Your task to perform on an android device: see creations saved in the google photos Image 0: 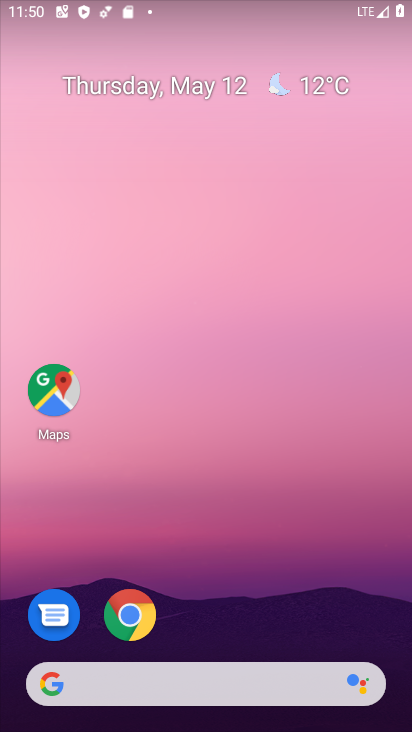
Step 0: drag from (202, 621) to (229, 203)
Your task to perform on an android device: see creations saved in the google photos Image 1: 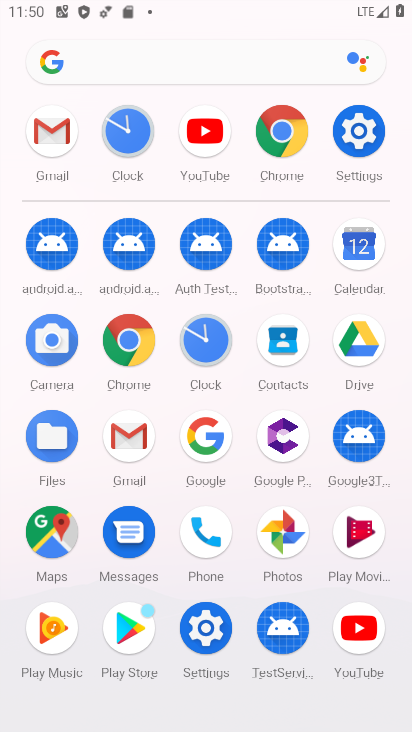
Step 1: click (263, 534)
Your task to perform on an android device: see creations saved in the google photos Image 2: 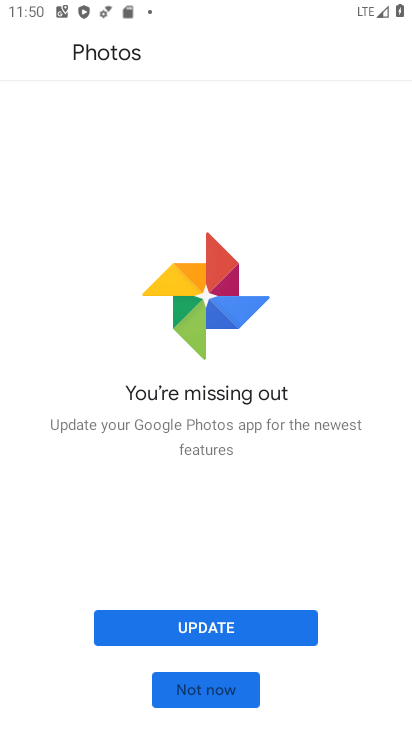
Step 2: click (222, 630)
Your task to perform on an android device: see creations saved in the google photos Image 3: 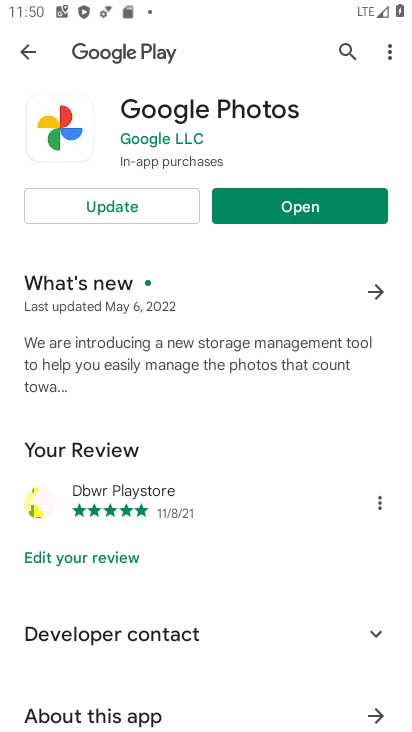
Step 3: click (253, 210)
Your task to perform on an android device: see creations saved in the google photos Image 4: 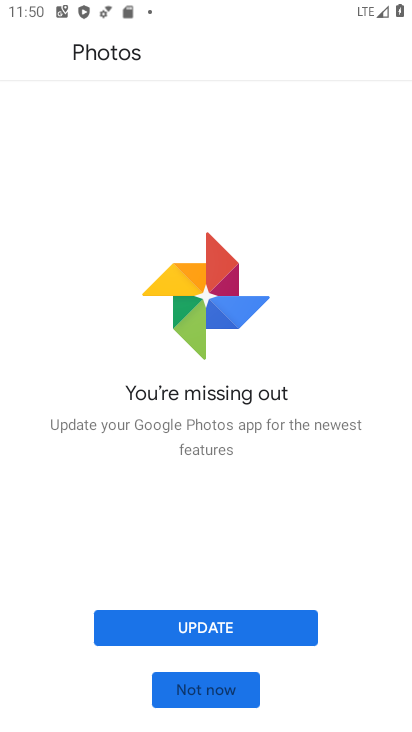
Step 4: click (180, 694)
Your task to perform on an android device: see creations saved in the google photos Image 5: 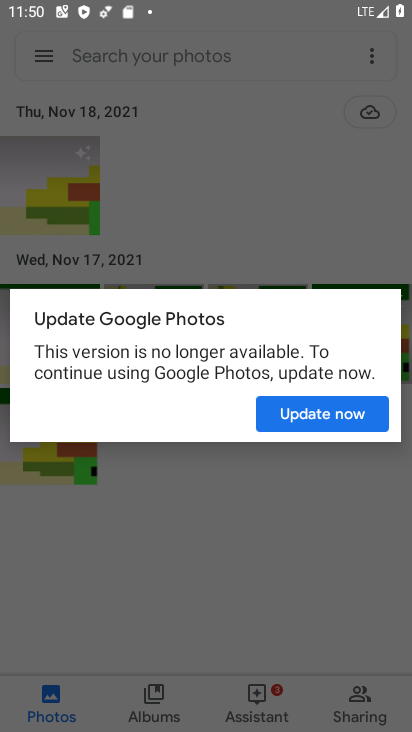
Step 5: click (275, 415)
Your task to perform on an android device: see creations saved in the google photos Image 6: 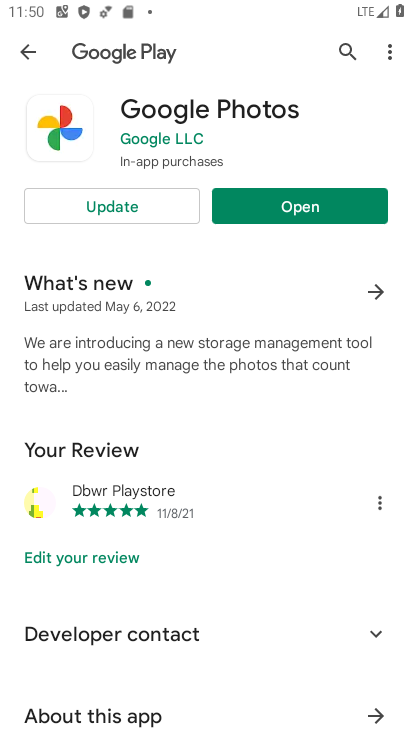
Step 6: click (236, 201)
Your task to perform on an android device: see creations saved in the google photos Image 7: 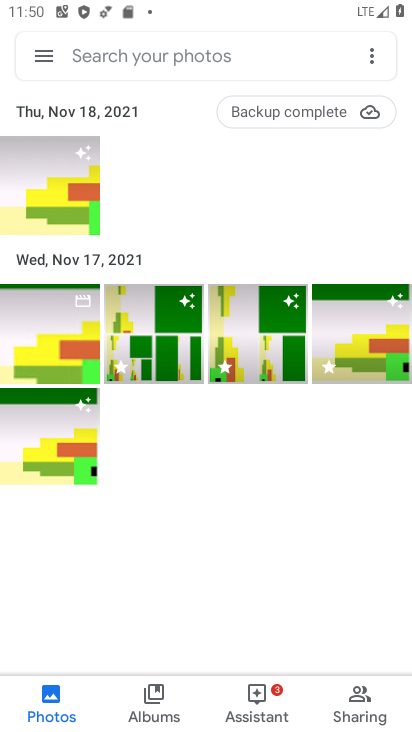
Step 7: click (53, 57)
Your task to perform on an android device: see creations saved in the google photos Image 8: 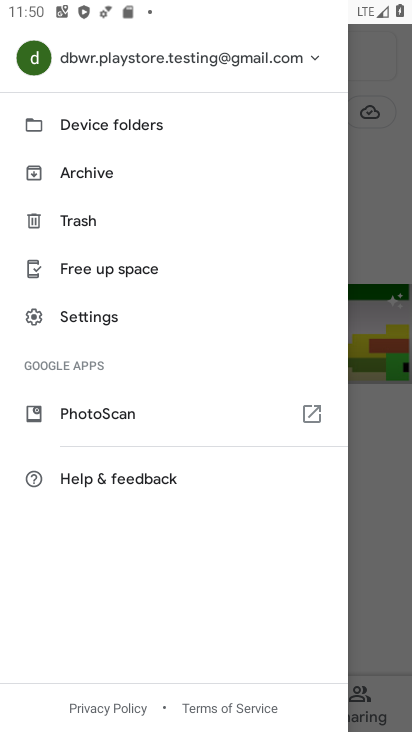
Step 8: click (385, 272)
Your task to perform on an android device: see creations saved in the google photos Image 9: 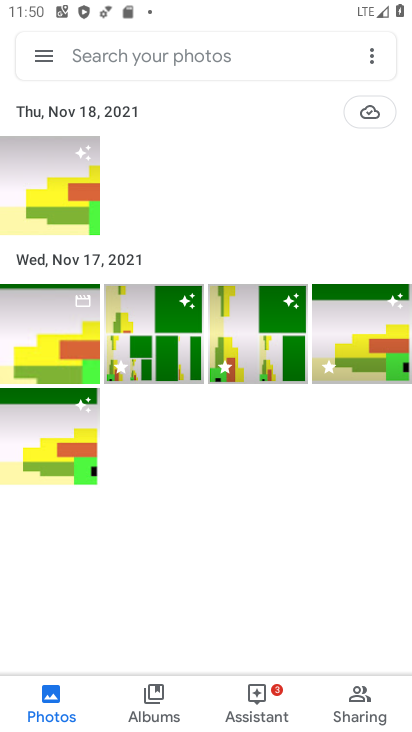
Step 9: click (210, 68)
Your task to perform on an android device: see creations saved in the google photos Image 10: 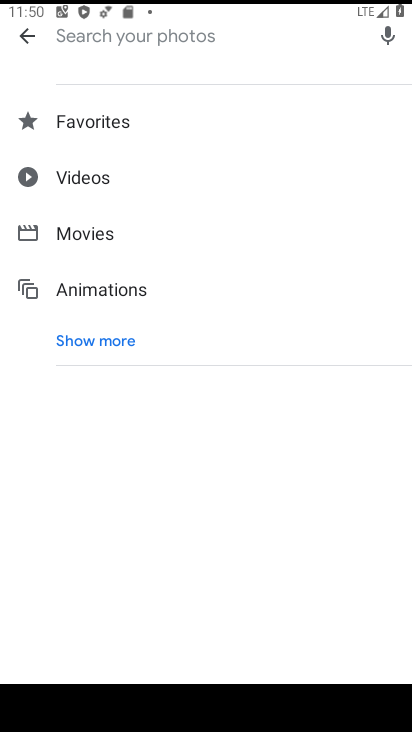
Step 10: click (110, 337)
Your task to perform on an android device: see creations saved in the google photos Image 11: 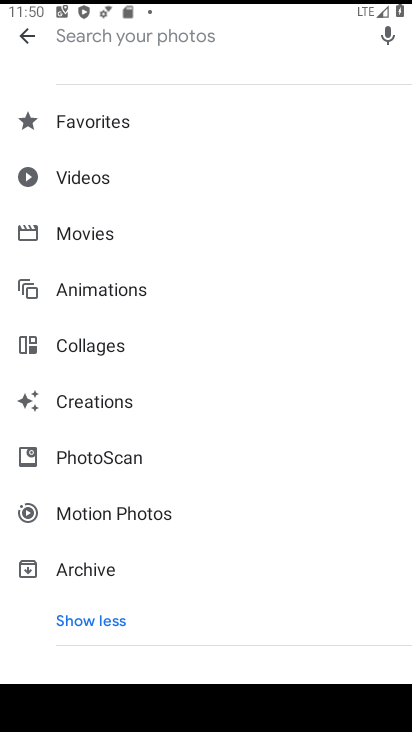
Step 11: drag from (126, 583) to (143, 456)
Your task to perform on an android device: see creations saved in the google photos Image 12: 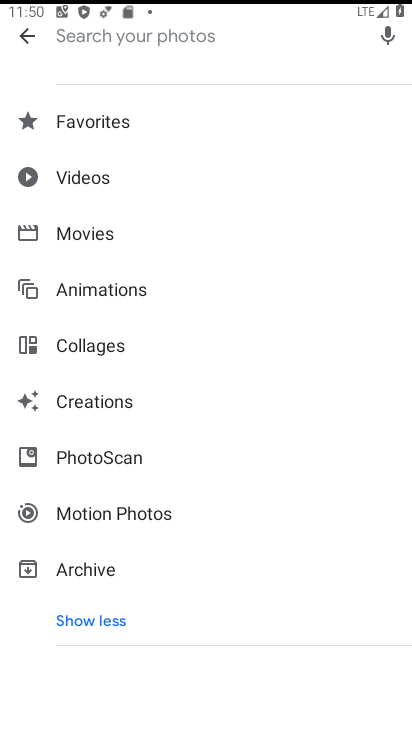
Step 12: click (126, 401)
Your task to perform on an android device: see creations saved in the google photos Image 13: 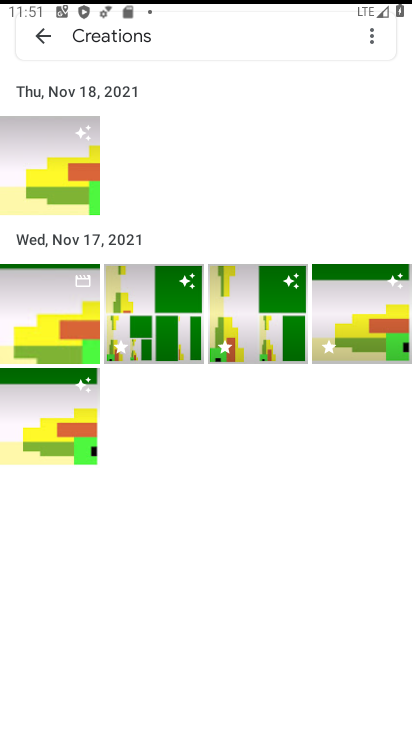
Step 13: task complete